Your task to perform on an android device: install app "Google Home" Image 0: 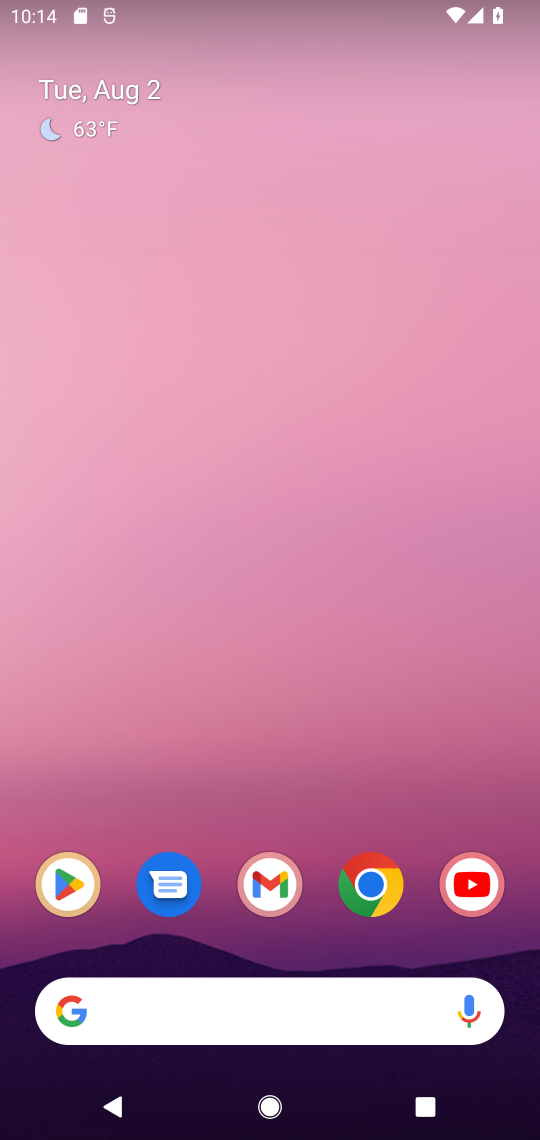
Step 0: click (73, 901)
Your task to perform on an android device: install app "Google Home" Image 1: 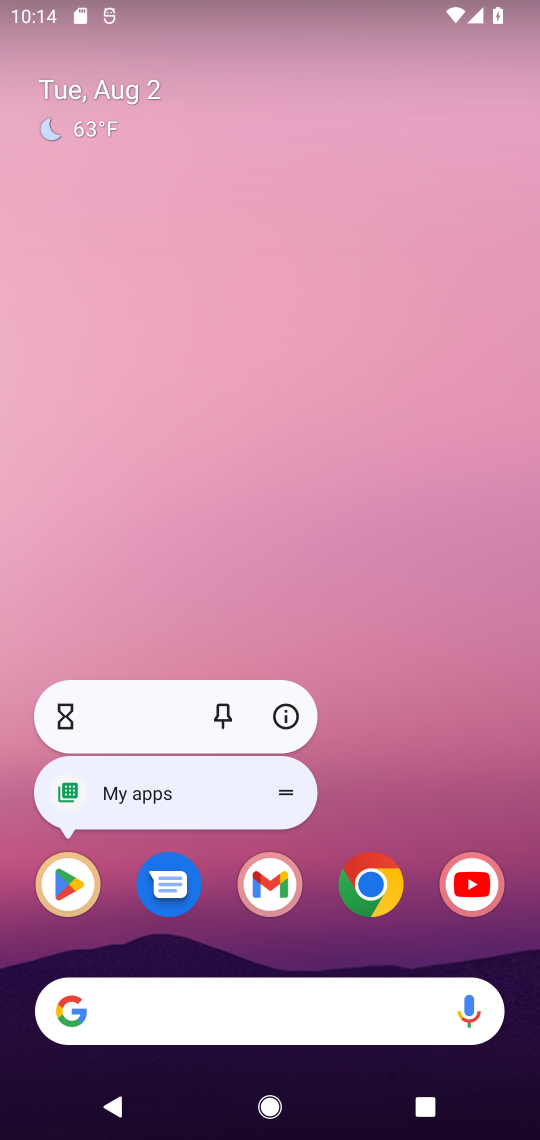
Step 1: click (72, 873)
Your task to perform on an android device: install app "Google Home" Image 2: 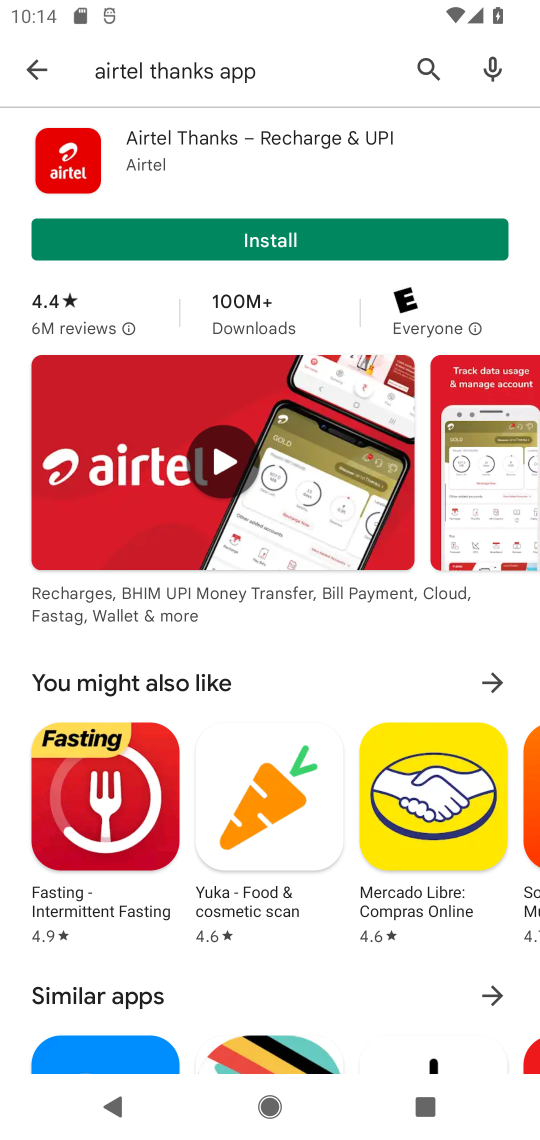
Step 2: click (217, 76)
Your task to perform on an android device: install app "Google Home" Image 3: 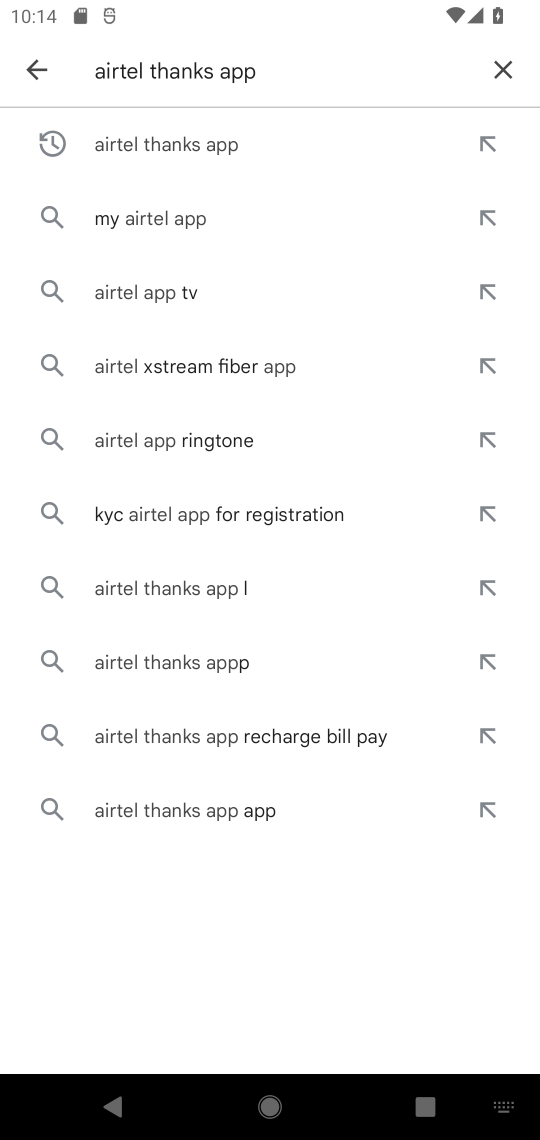
Step 3: click (494, 78)
Your task to perform on an android device: install app "Google Home" Image 4: 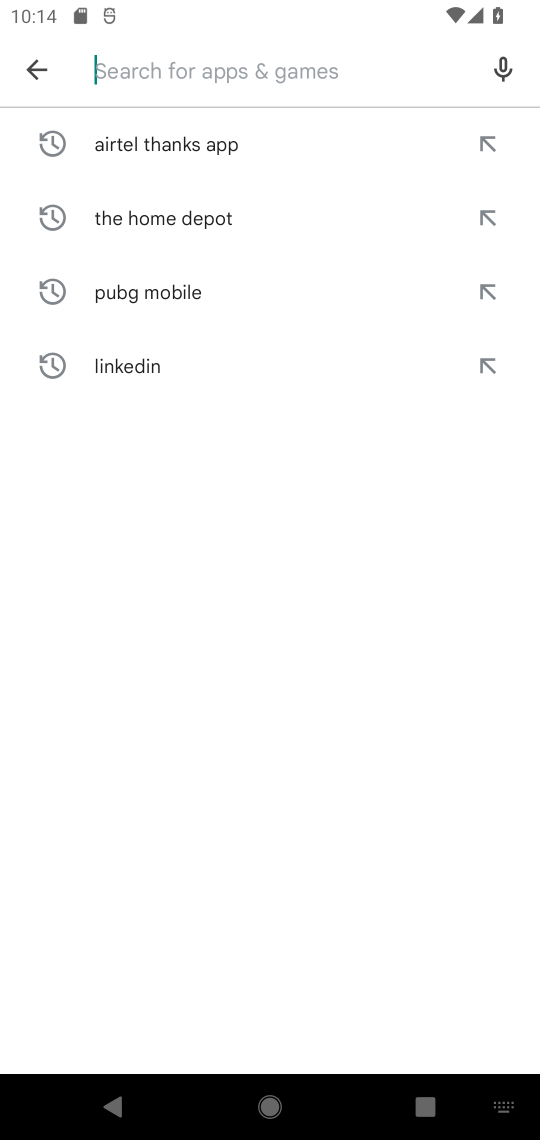
Step 4: type "google home"
Your task to perform on an android device: install app "Google Home" Image 5: 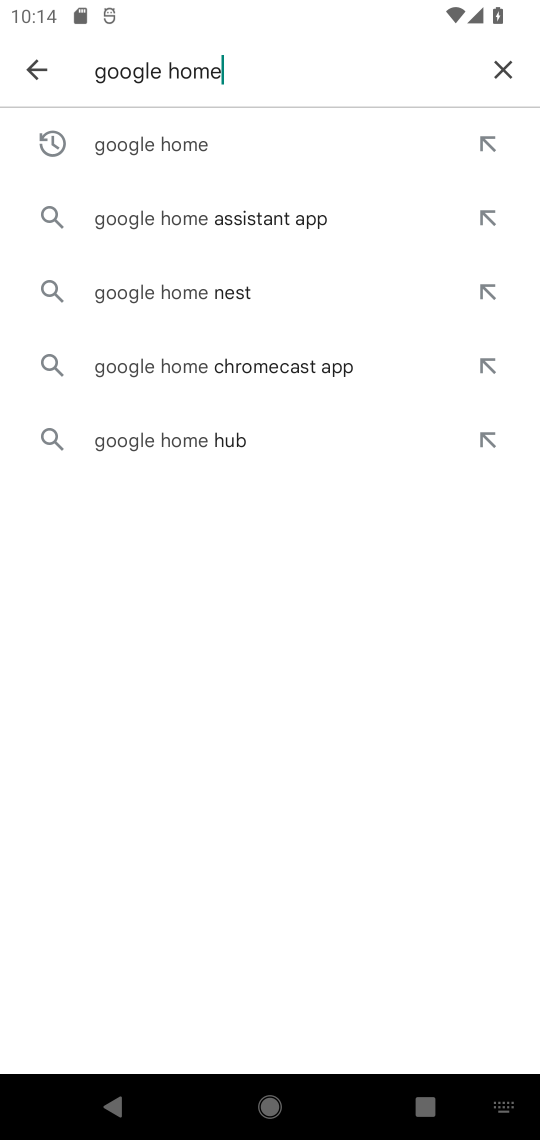
Step 5: click (200, 149)
Your task to perform on an android device: install app "Google Home" Image 6: 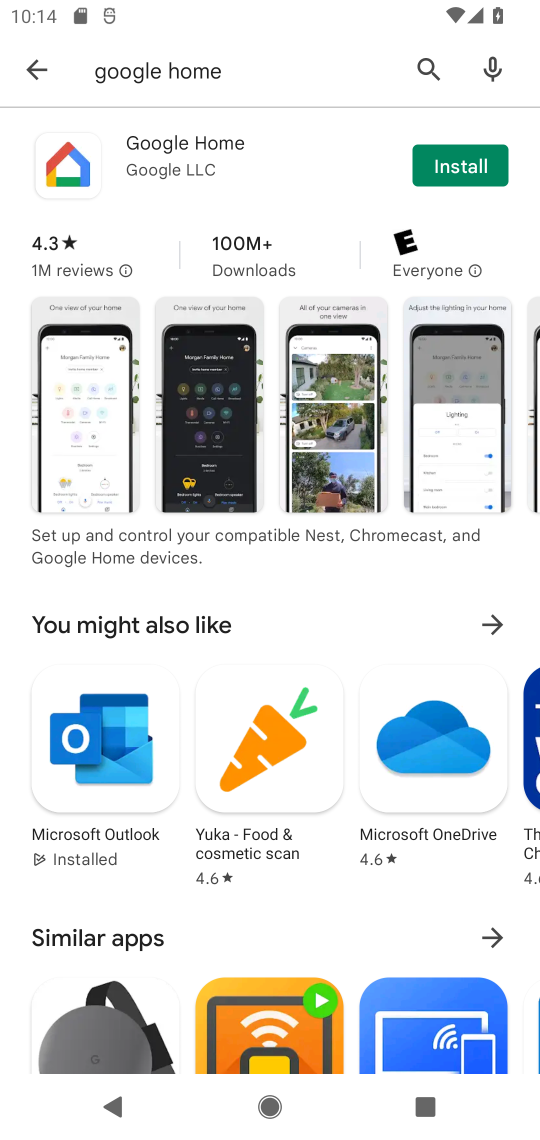
Step 6: click (457, 172)
Your task to perform on an android device: install app "Google Home" Image 7: 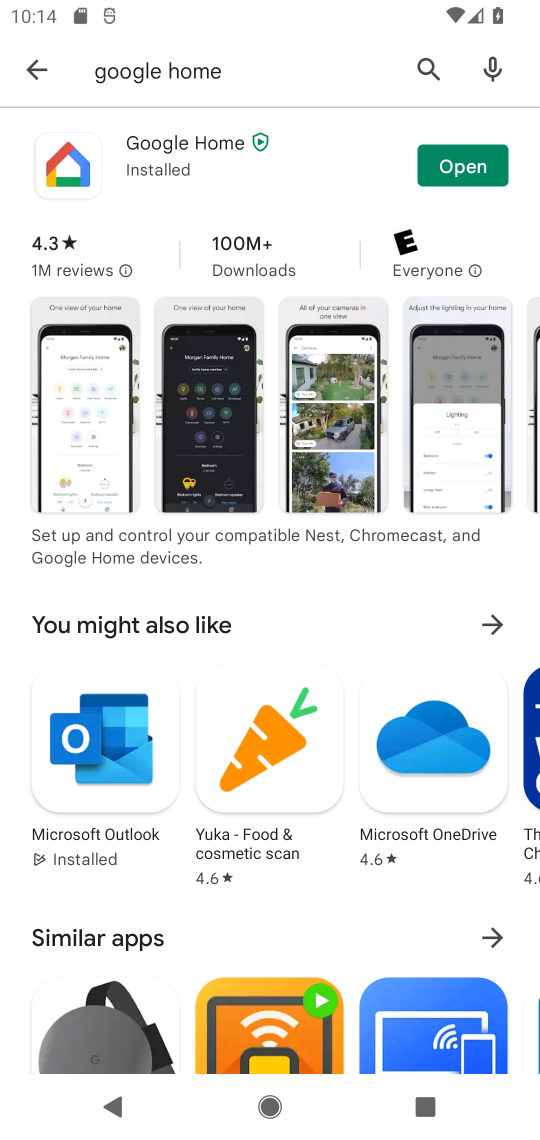
Step 7: task complete